Your task to perform on an android device: Open Google Chrome and click the shortcut for Amazon.com Image 0: 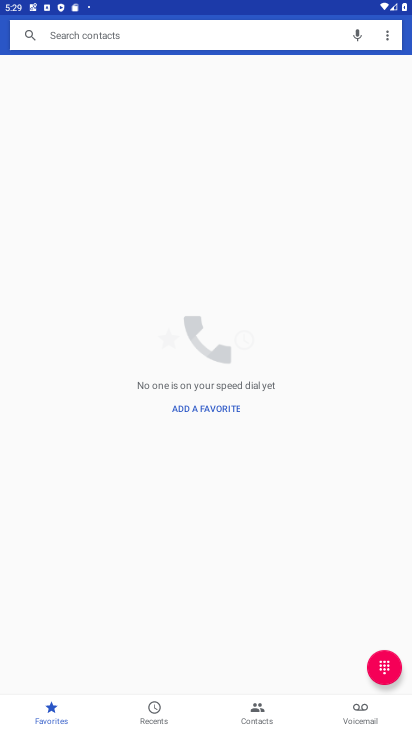
Step 0: press home button
Your task to perform on an android device: Open Google Chrome and click the shortcut for Amazon.com Image 1: 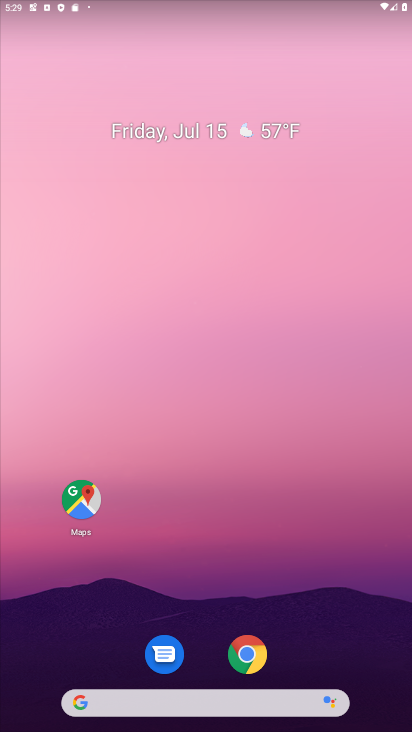
Step 1: click (248, 664)
Your task to perform on an android device: Open Google Chrome and click the shortcut for Amazon.com Image 2: 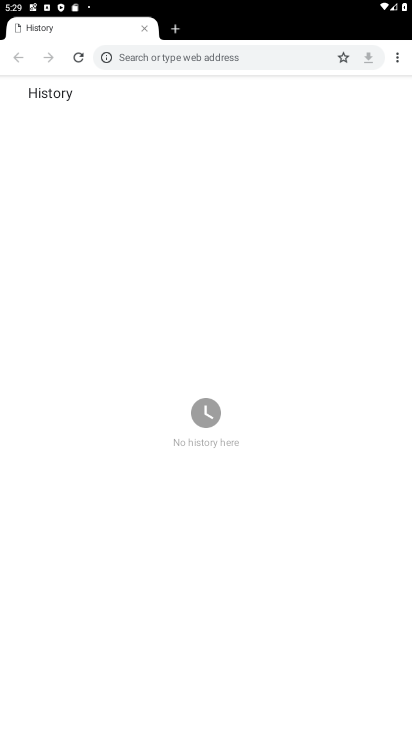
Step 2: click (177, 22)
Your task to perform on an android device: Open Google Chrome and click the shortcut for Amazon.com Image 3: 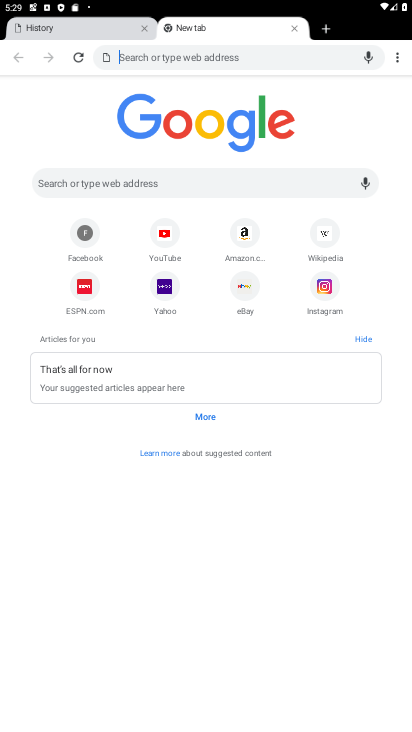
Step 3: click (248, 243)
Your task to perform on an android device: Open Google Chrome and click the shortcut for Amazon.com Image 4: 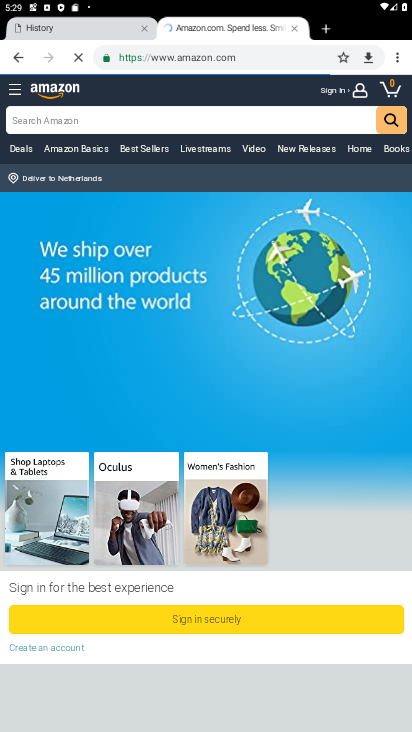
Step 4: task complete